Your task to perform on an android device: Go to Reddit.com Image 0: 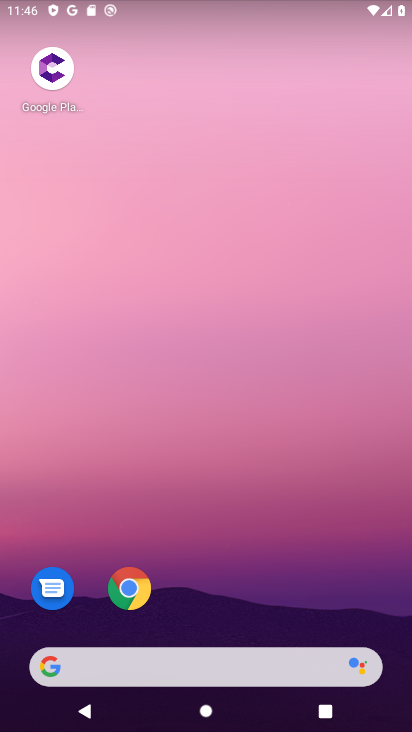
Step 0: click (91, 663)
Your task to perform on an android device: Go to Reddit.com Image 1: 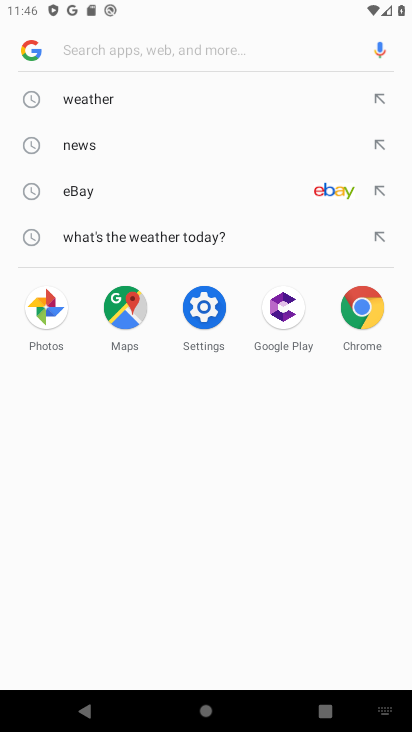
Step 1: type "reddit"
Your task to perform on an android device: Go to Reddit.com Image 2: 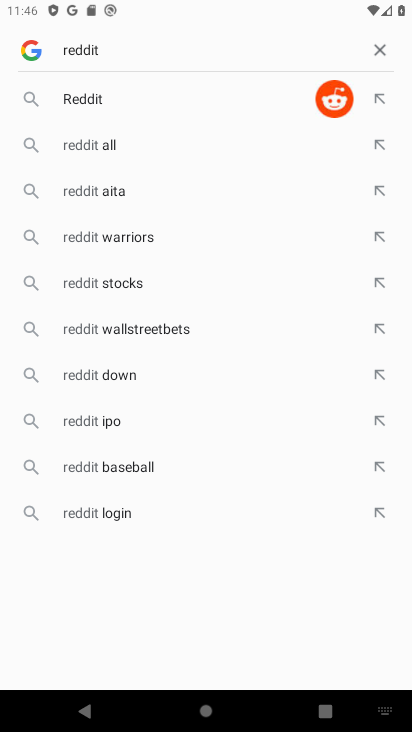
Step 2: click (109, 109)
Your task to perform on an android device: Go to Reddit.com Image 3: 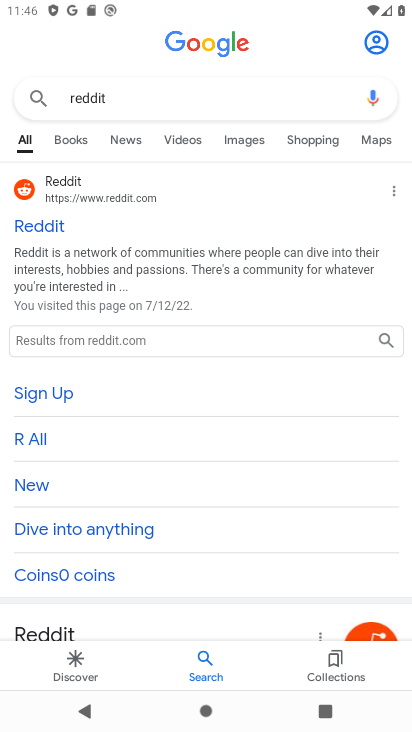
Step 3: click (48, 224)
Your task to perform on an android device: Go to Reddit.com Image 4: 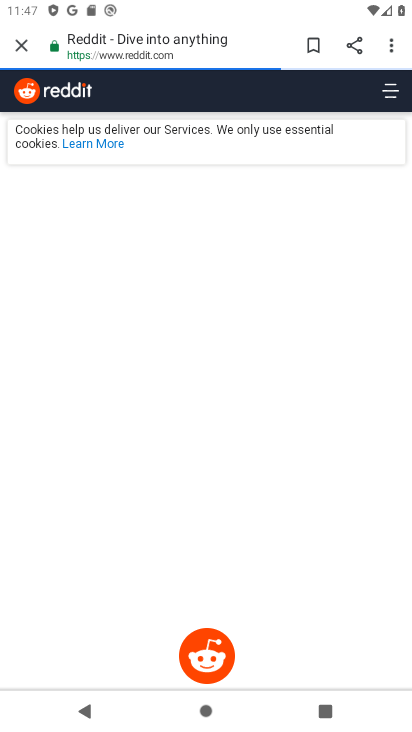
Step 4: task complete